Your task to perform on an android device: Play the last video I watched on Youtube Image 0: 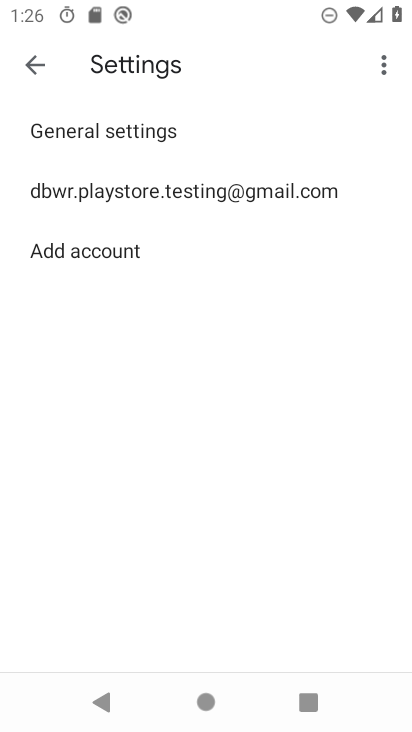
Step 0: press home button
Your task to perform on an android device: Play the last video I watched on Youtube Image 1: 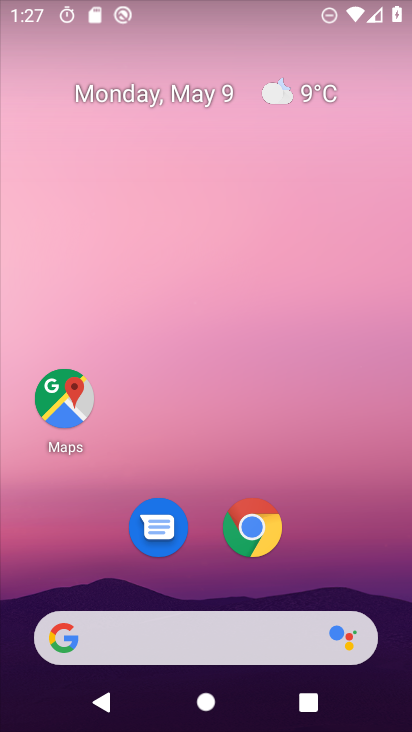
Step 1: drag from (197, 585) to (292, 0)
Your task to perform on an android device: Play the last video I watched on Youtube Image 2: 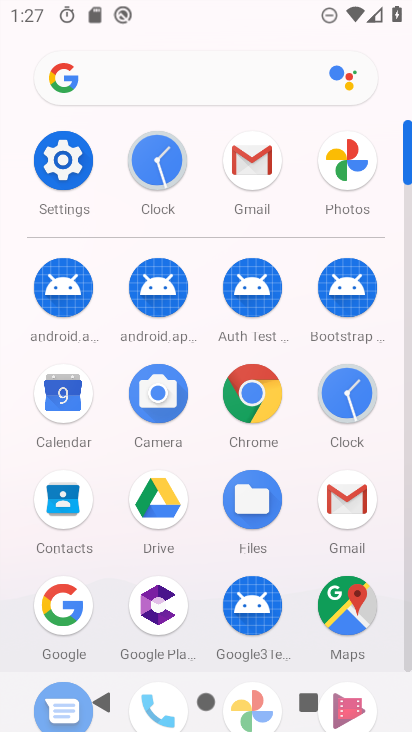
Step 2: drag from (166, 584) to (260, 50)
Your task to perform on an android device: Play the last video I watched on Youtube Image 3: 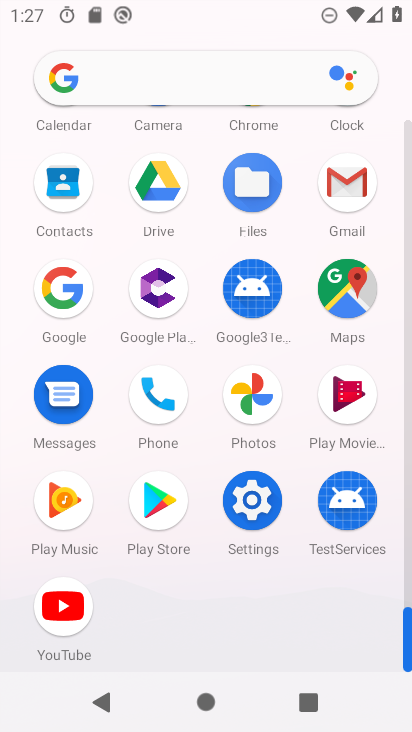
Step 3: click (61, 616)
Your task to perform on an android device: Play the last video I watched on Youtube Image 4: 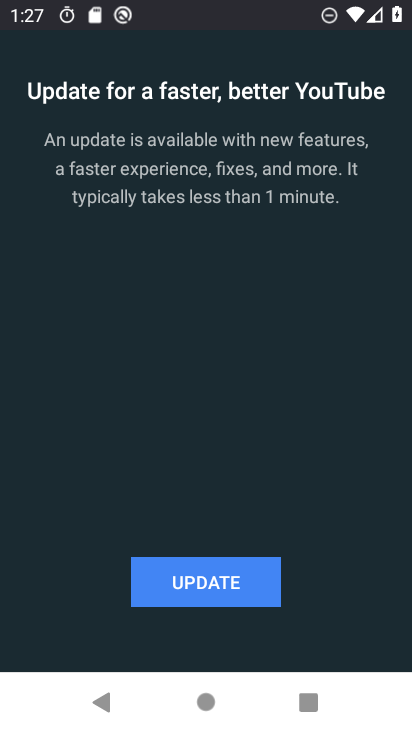
Step 4: click (181, 579)
Your task to perform on an android device: Play the last video I watched on Youtube Image 5: 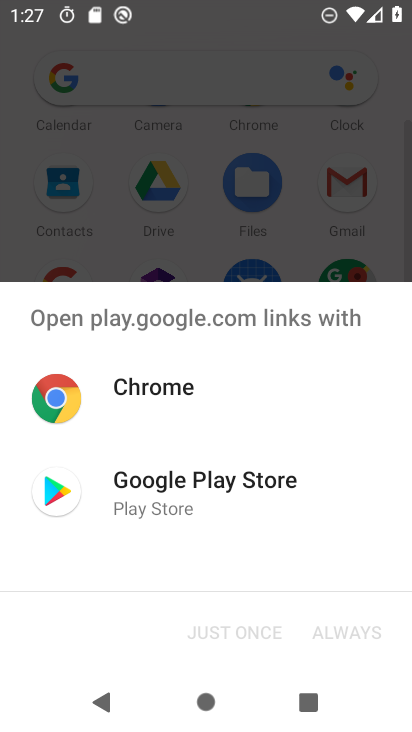
Step 5: click (160, 486)
Your task to perform on an android device: Play the last video I watched on Youtube Image 6: 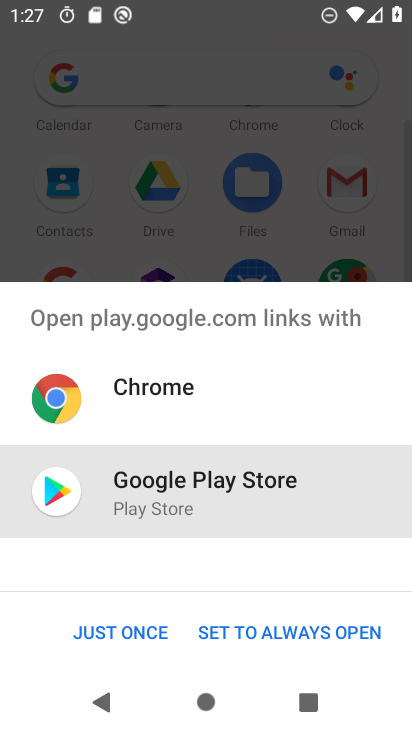
Step 6: click (234, 626)
Your task to perform on an android device: Play the last video I watched on Youtube Image 7: 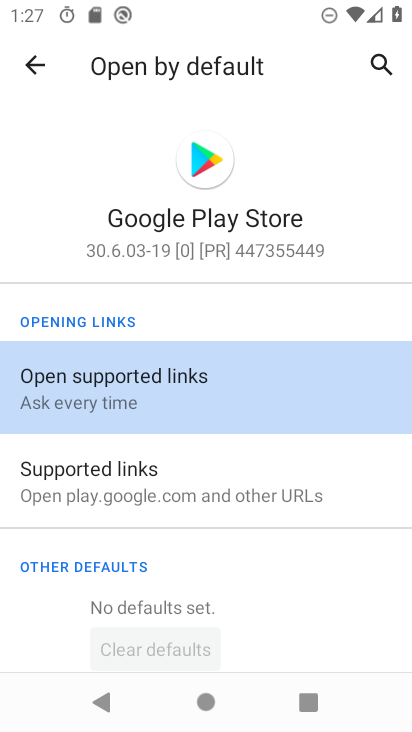
Step 7: press back button
Your task to perform on an android device: Play the last video I watched on Youtube Image 8: 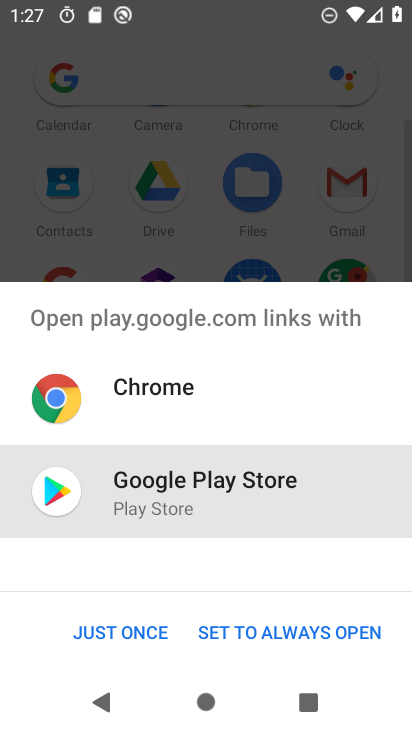
Step 8: click (208, 471)
Your task to perform on an android device: Play the last video I watched on Youtube Image 9: 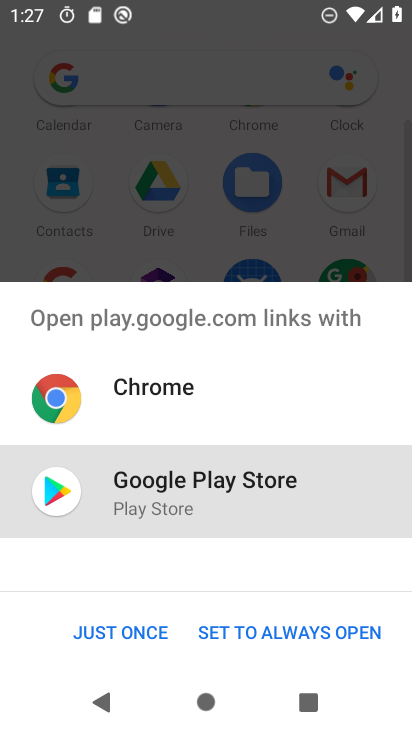
Step 9: click (98, 626)
Your task to perform on an android device: Play the last video I watched on Youtube Image 10: 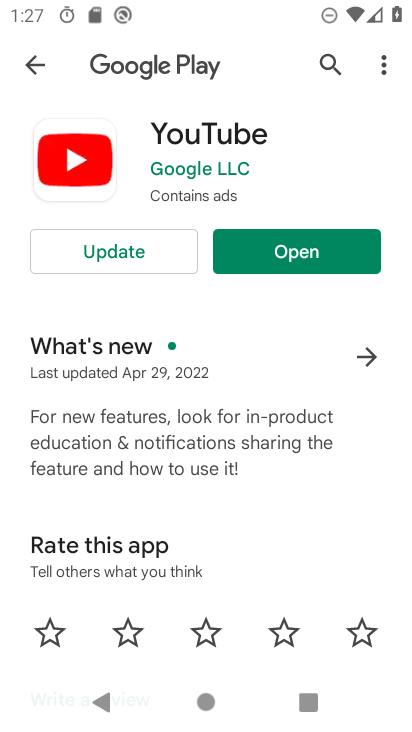
Step 10: click (130, 231)
Your task to perform on an android device: Play the last video I watched on Youtube Image 11: 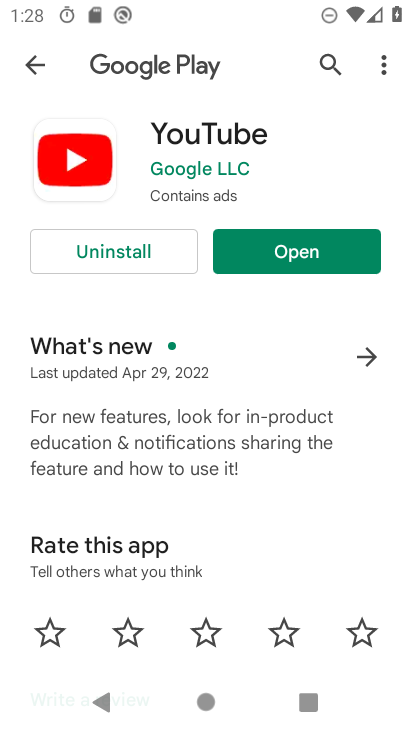
Step 11: click (291, 248)
Your task to perform on an android device: Play the last video I watched on Youtube Image 12: 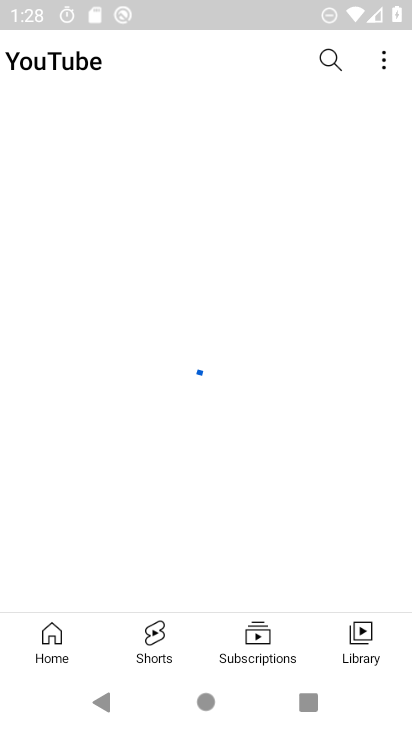
Step 12: click (369, 644)
Your task to perform on an android device: Play the last video I watched on Youtube Image 13: 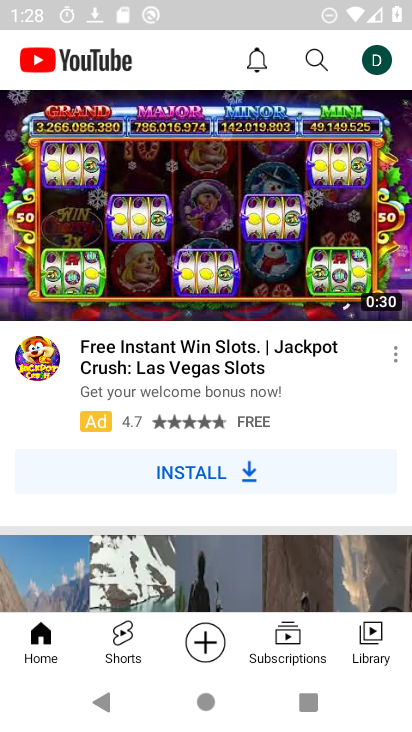
Step 13: click (371, 644)
Your task to perform on an android device: Play the last video I watched on Youtube Image 14: 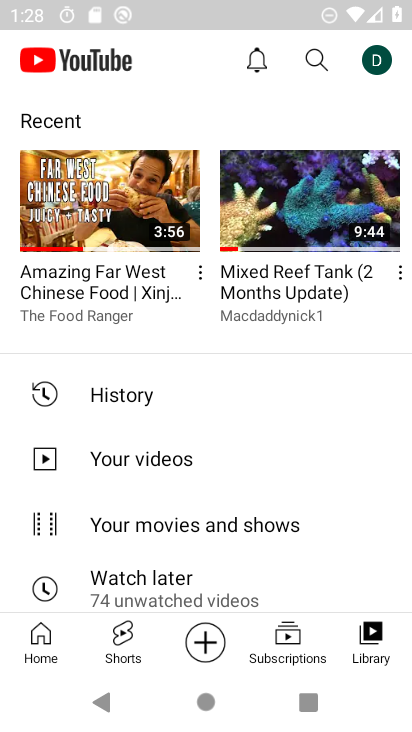
Step 14: click (131, 393)
Your task to perform on an android device: Play the last video I watched on Youtube Image 15: 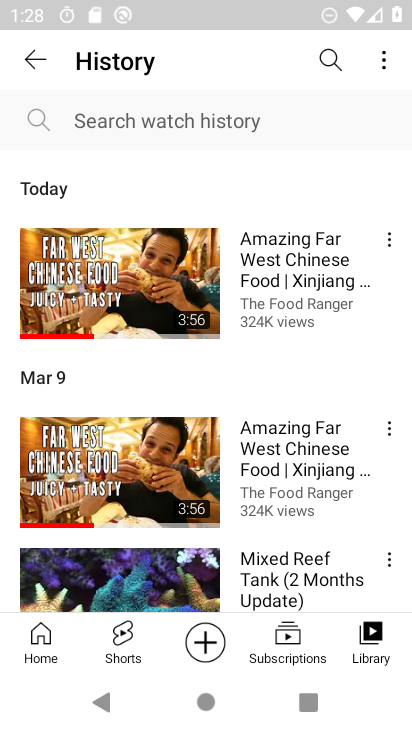
Step 15: click (87, 260)
Your task to perform on an android device: Play the last video I watched on Youtube Image 16: 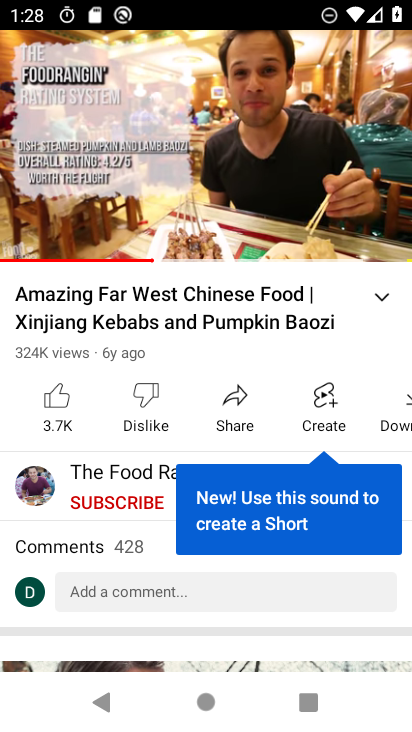
Step 16: task complete